Your task to perform on an android device: Open the Play Movies app and select the watchlist tab. Image 0: 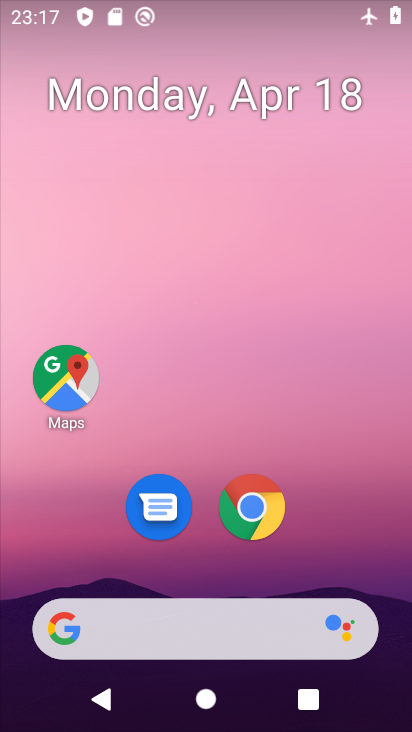
Step 0: drag from (338, 498) to (343, 1)
Your task to perform on an android device: Open the Play Movies app and select the watchlist tab. Image 1: 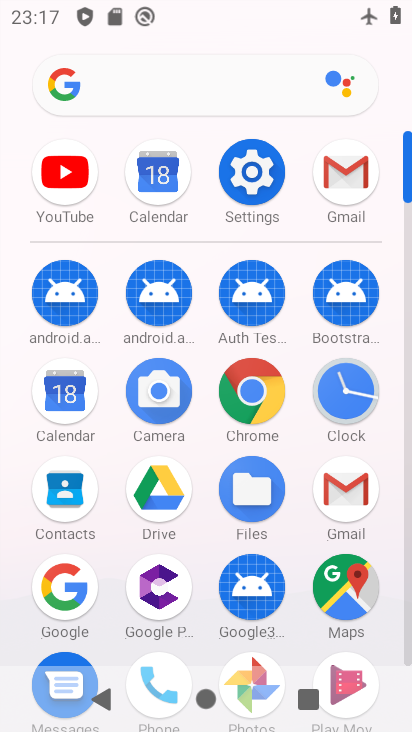
Step 1: drag from (270, 502) to (338, 149)
Your task to perform on an android device: Open the Play Movies app and select the watchlist tab. Image 2: 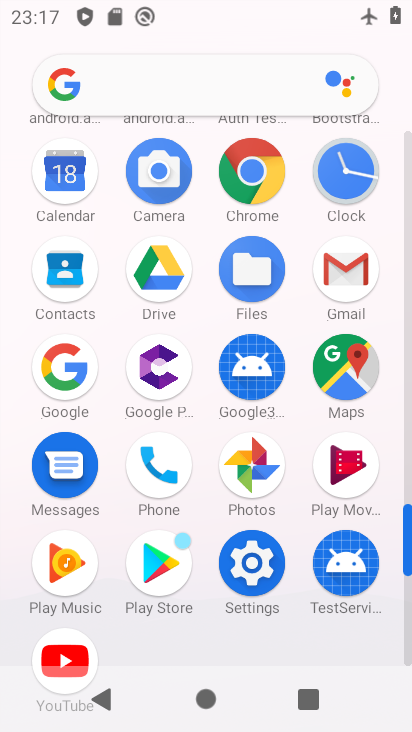
Step 2: click (329, 466)
Your task to perform on an android device: Open the Play Movies app and select the watchlist tab. Image 3: 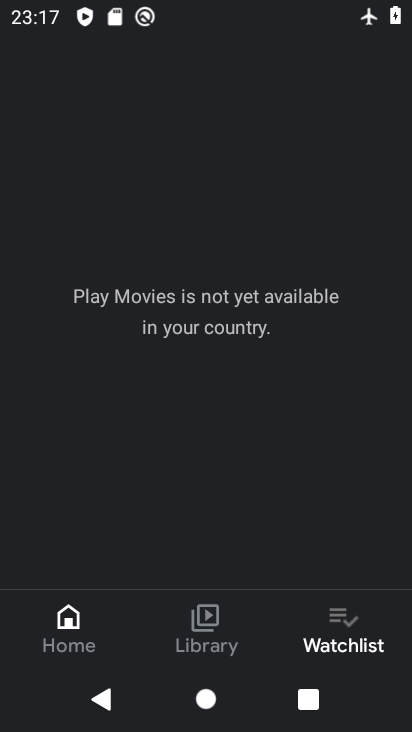
Step 3: click (327, 614)
Your task to perform on an android device: Open the Play Movies app and select the watchlist tab. Image 4: 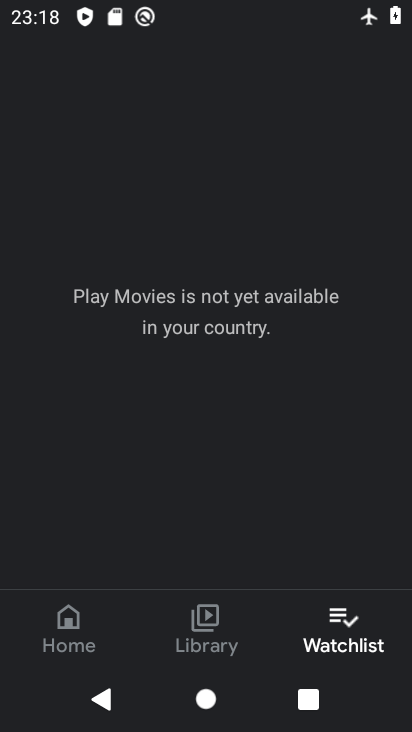
Step 4: task complete